Your task to perform on an android device: Go to calendar. Show me events next week Image 0: 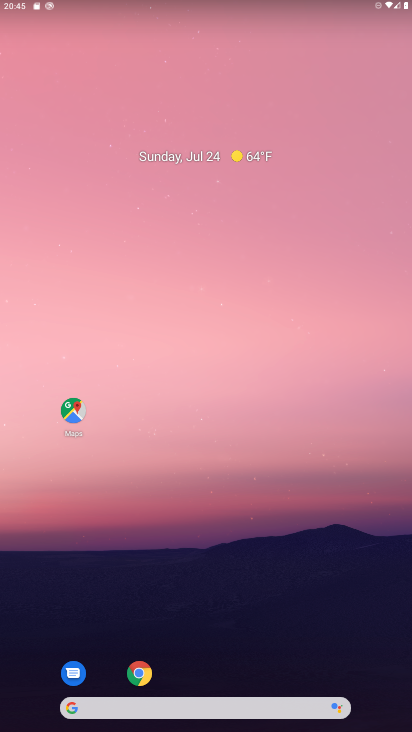
Step 0: drag from (277, 634) to (228, 74)
Your task to perform on an android device: Go to calendar. Show me events next week Image 1: 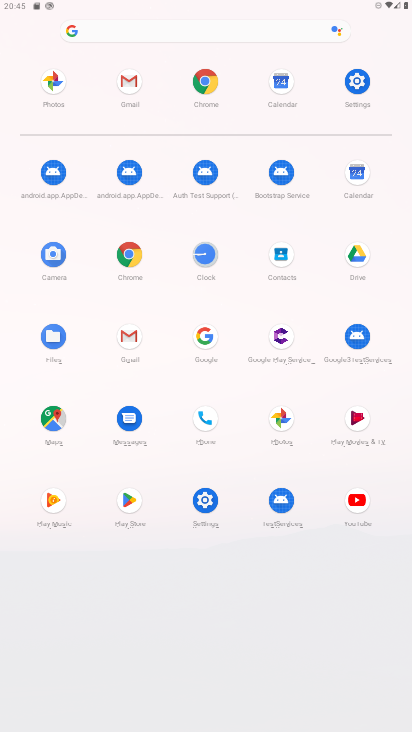
Step 1: click (360, 177)
Your task to perform on an android device: Go to calendar. Show me events next week Image 2: 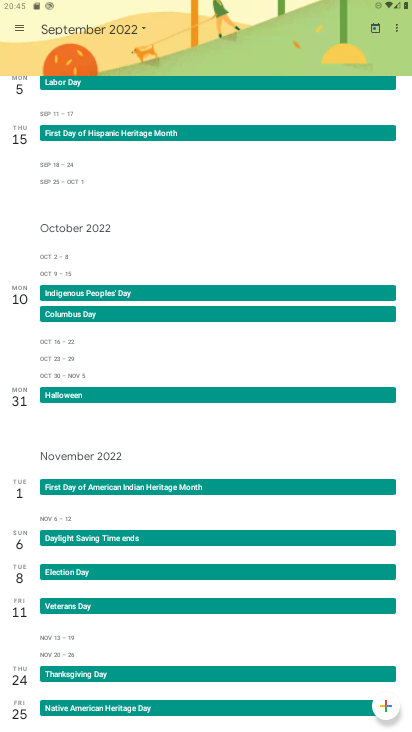
Step 2: click (17, 29)
Your task to perform on an android device: Go to calendar. Show me events next week Image 3: 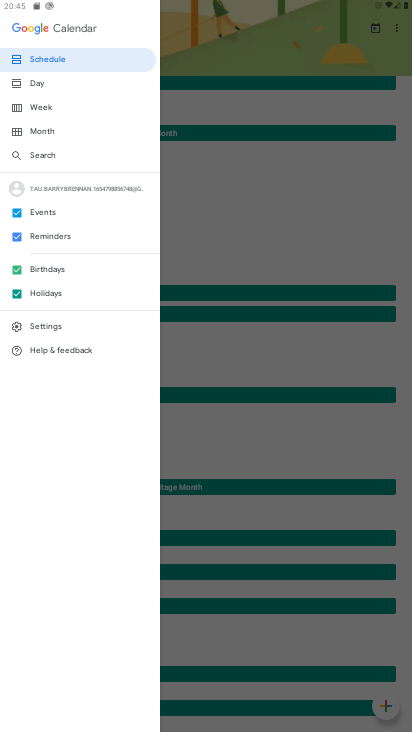
Step 3: click (48, 109)
Your task to perform on an android device: Go to calendar. Show me events next week Image 4: 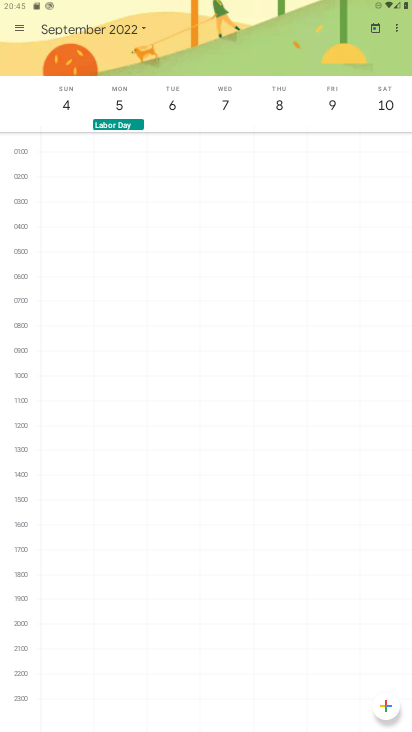
Step 4: click (104, 27)
Your task to perform on an android device: Go to calendar. Show me events next week Image 5: 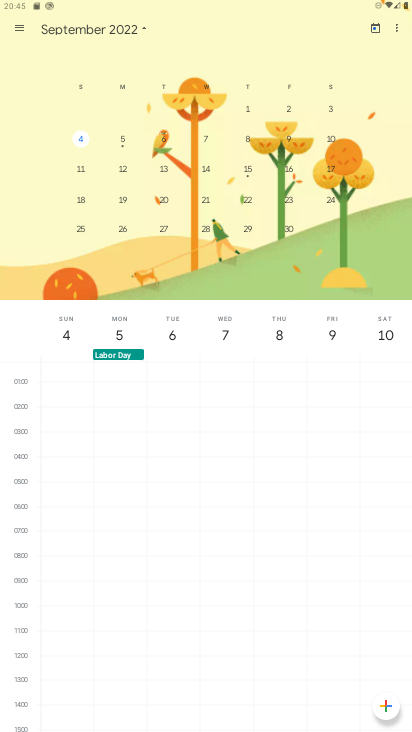
Step 5: click (248, 109)
Your task to perform on an android device: Go to calendar. Show me events next week Image 6: 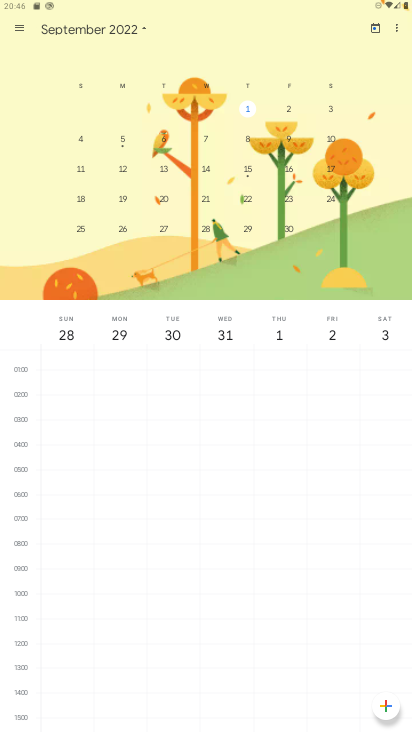
Step 6: task complete